Your task to perform on an android device: Open location settings Image 0: 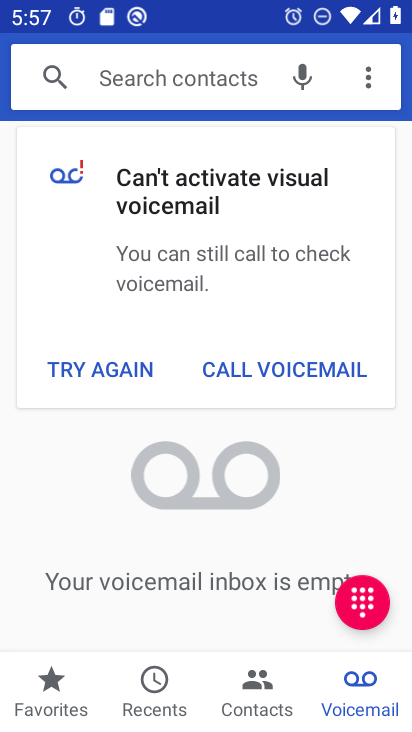
Step 0: drag from (237, 600) to (197, 62)
Your task to perform on an android device: Open location settings Image 1: 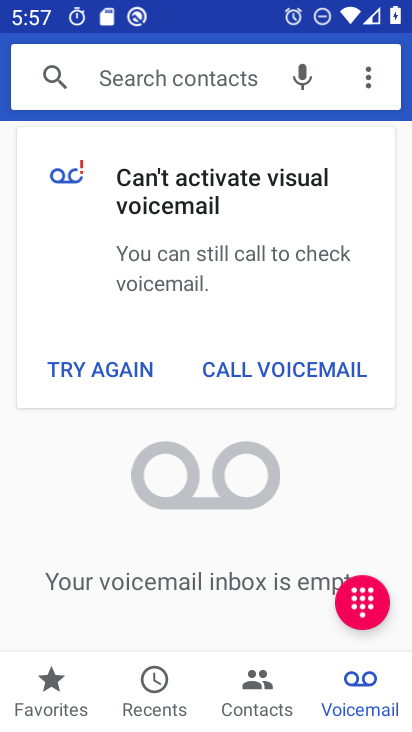
Step 1: press home button
Your task to perform on an android device: Open location settings Image 2: 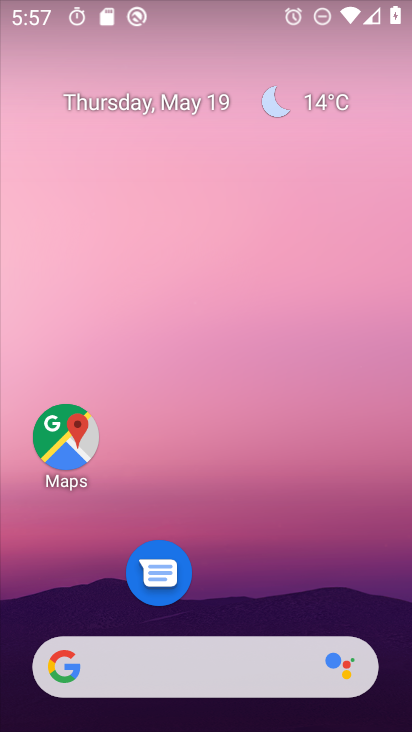
Step 2: drag from (222, 610) to (185, 218)
Your task to perform on an android device: Open location settings Image 3: 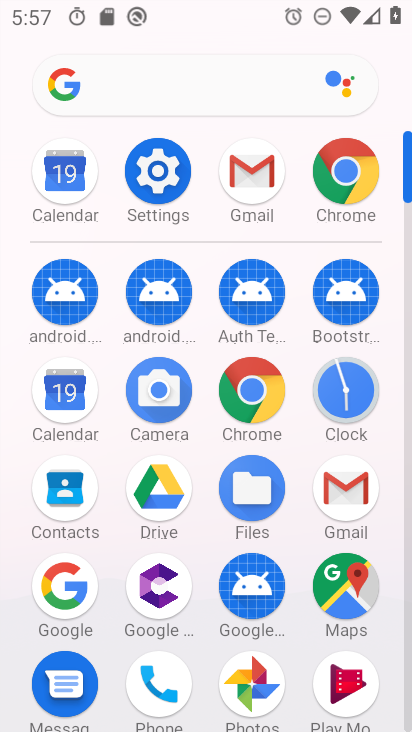
Step 3: click (163, 178)
Your task to perform on an android device: Open location settings Image 4: 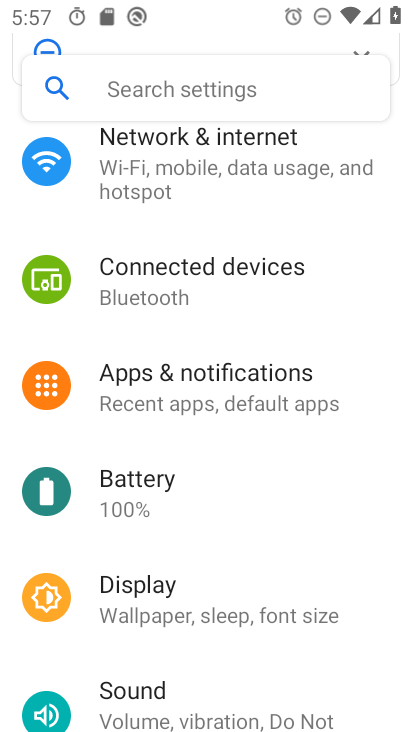
Step 4: drag from (163, 663) to (187, 161)
Your task to perform on an android device: Open location settings Image 5: 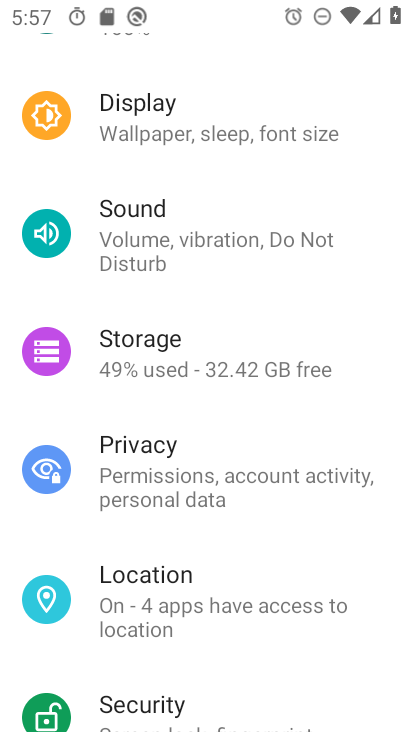
Step 5: click (127, 604)
Your task to perform on an android device: Open location settings Image 6: 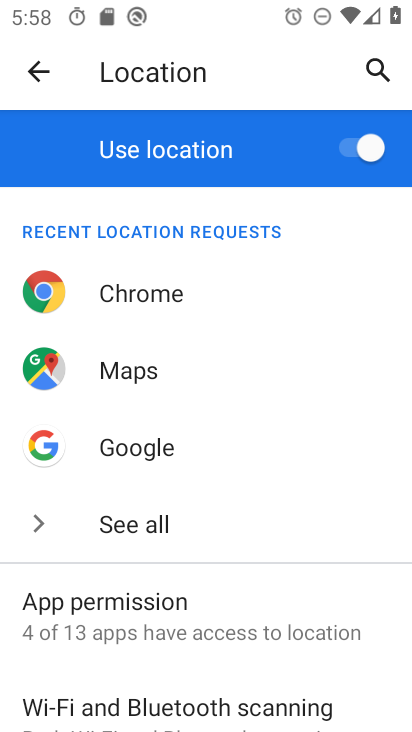
Step 6: task complete